Your task to perform on an android device: What's the weather? Image 0: 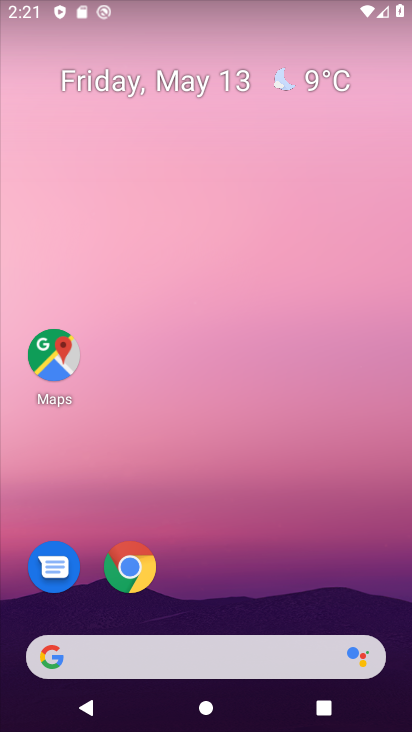
Step 0: click (320, 93)
Your task to perform on an android device: What's the weather? Image 1: 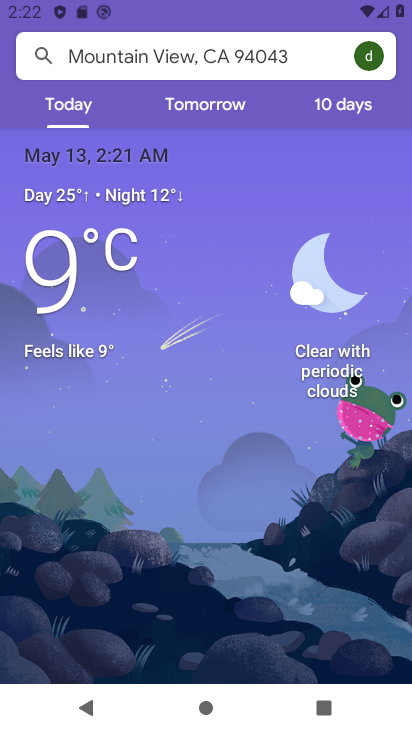
Step 1: task complete